Your task to perform on an android device: Open ESPN.com Image 0: 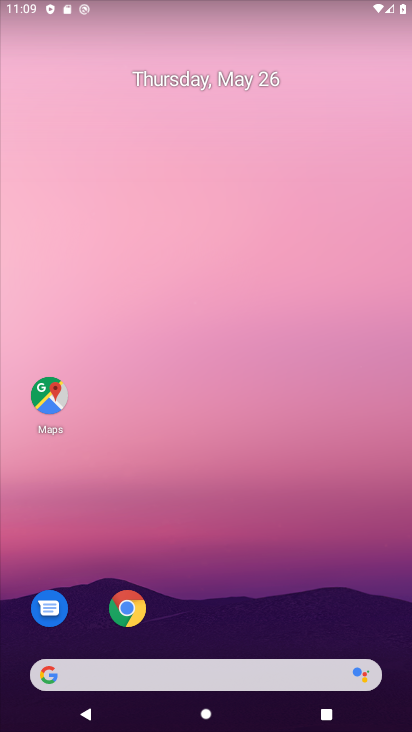
Step 0: drag from (282, 509) to (238, 95)
Your task to perform on an android device: Open ESPN.com Image 1: 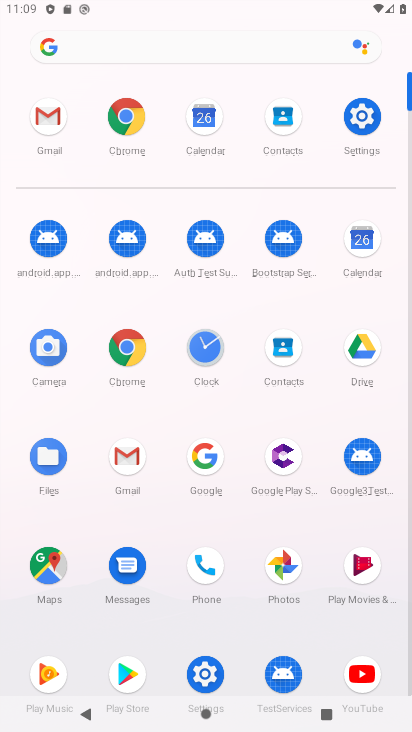
Step 1: click (104, 117)
Your task to perform on an android device: Open ESPN.com Image 2: 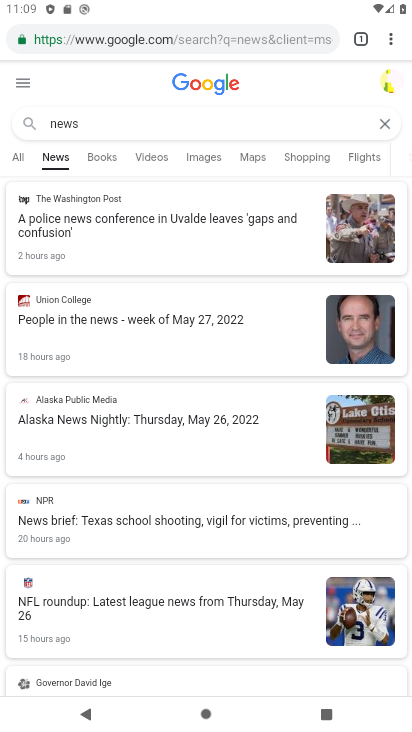
Step 2: click (150, 33)
Your task to perform on an android device: Open ESPN.com Image 3: 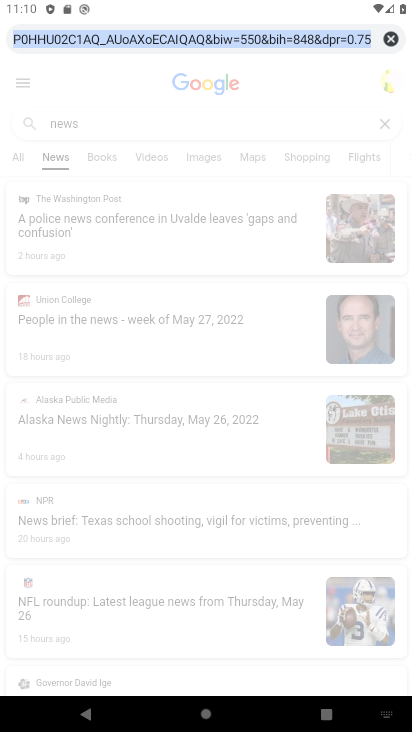
Step 3: type "espn.com"
Your task to perform on an android device: Open ESPN.com Image 4: 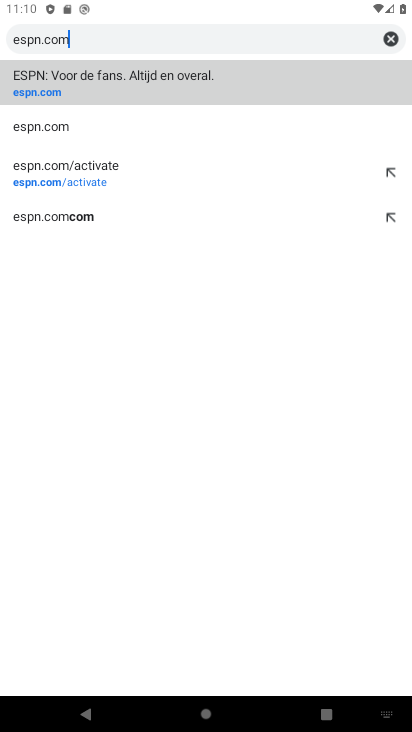
Step 4: click (29, 88)
Your task to perform on an android device: Open ESPN.com Image 5: 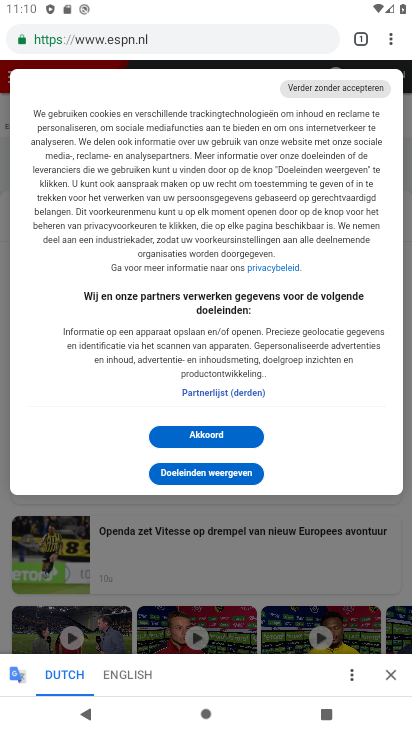
Step 5: task complete